Your task to perform on an android device: toggle notifications settings in the gmail app Image 0: 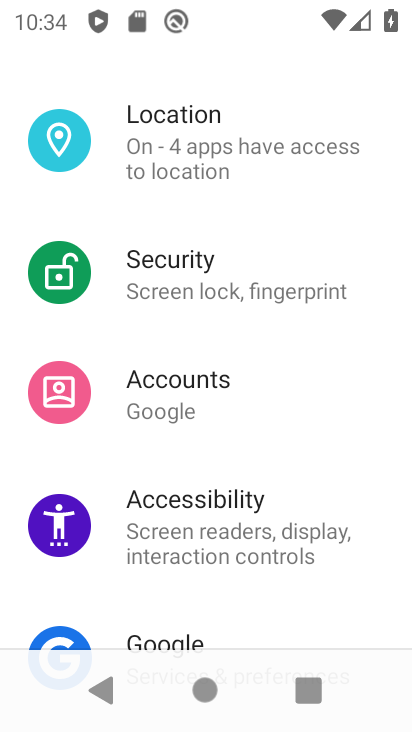
Step 0: press home button
Your task to perform on an android device: toggle notifications settings in the gmail app Image 1: 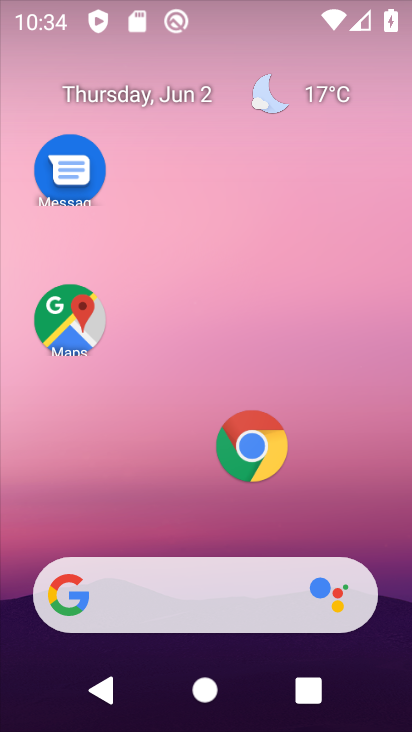
Step 1: drag from (327, 520) to (331, 0)
Your task to perform on an android device: toggle notifications settings in the gmail app Image 2: 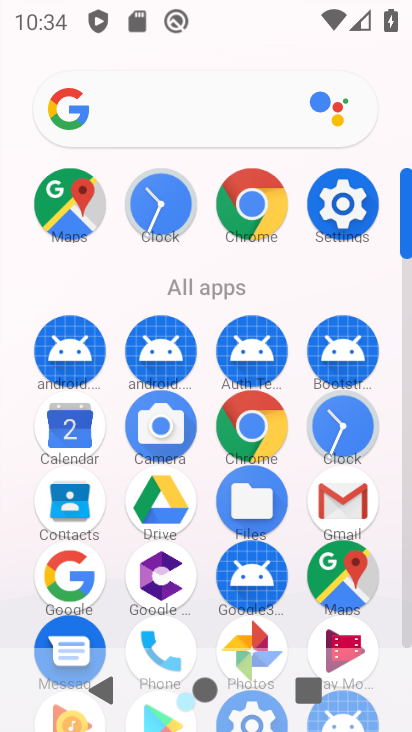
Step 2: click (325, 504)
Your task to perform on an android device: toggle notifications settings in the gmail app Image 3: 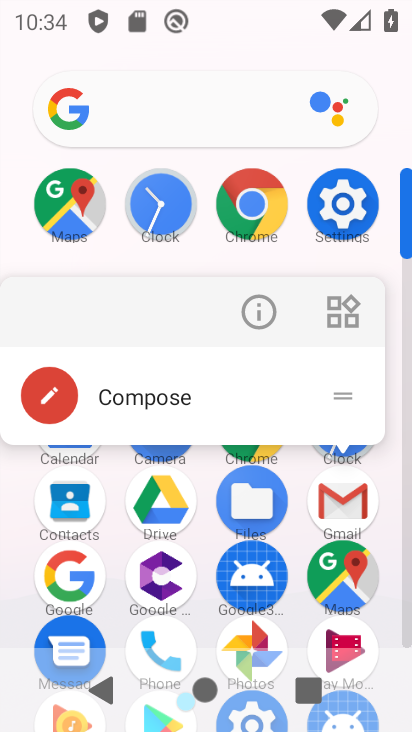
Step 3: click (274, 320)
Your task to perform on an android device: toggle notifications settings in the gmail app Image 4: 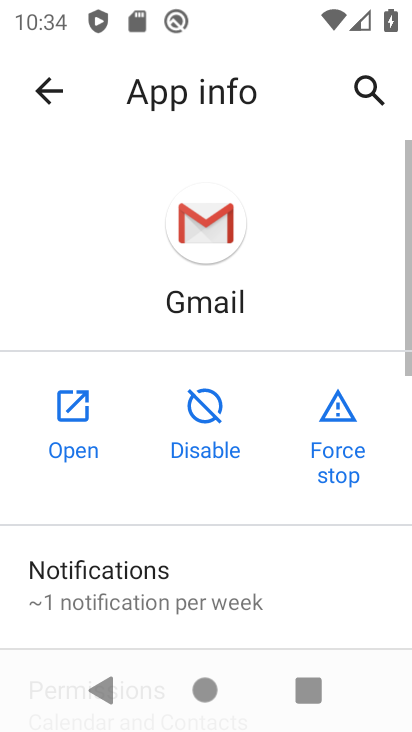
Step 4: click (131, 583)
Your task to perform on an android device: toggle notifications settings in the gmail app Image 5: 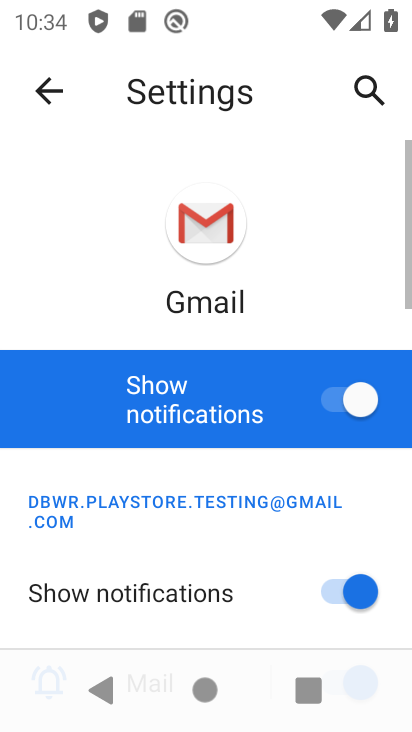
Step 5: click (255, 424)
Your task to perform on an android device: toggle notifications settings in the gmail app Image 6: 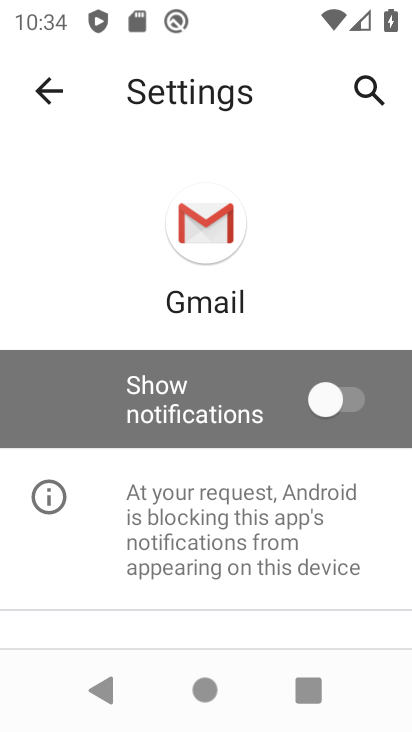
Step 6: task complete